Your task to perform on an android device: Search for flights from Sydney to Zurich Image 0: 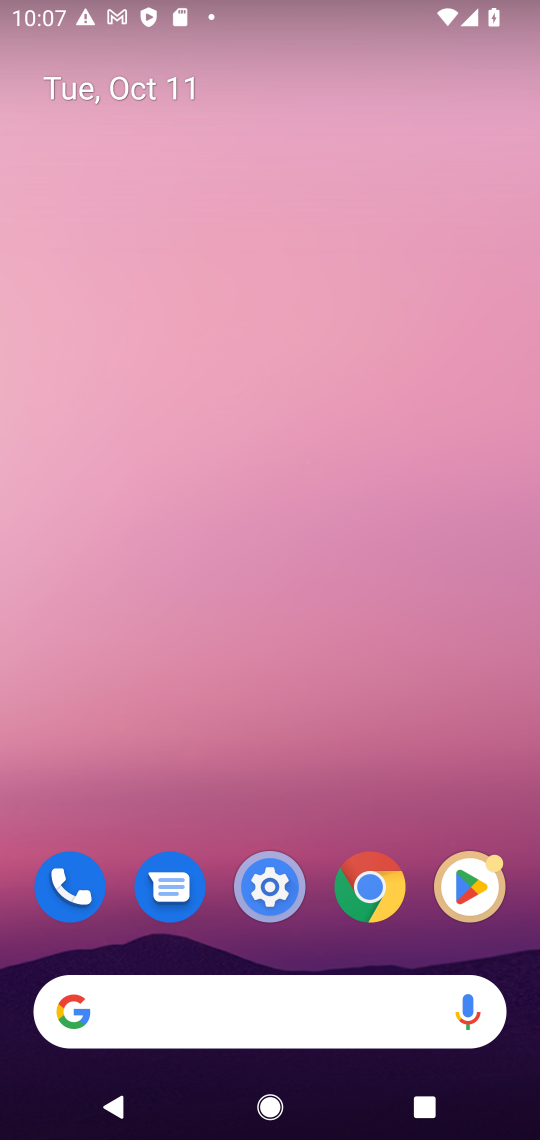
Step 0: press home button
Your task to perform on an android device: Search for flights from Sydney to Zurich Image 1: 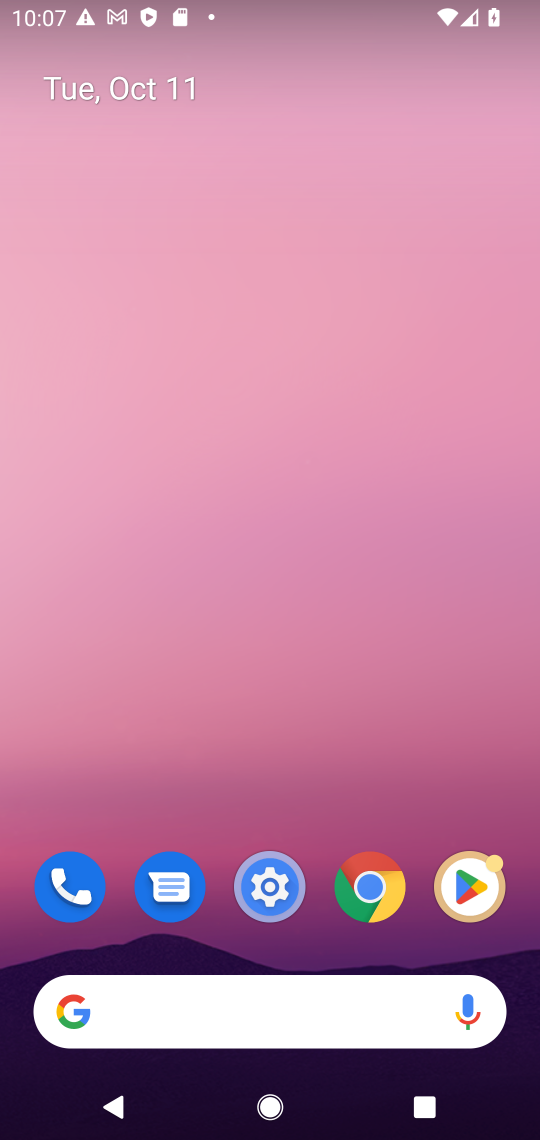
Step 1: click (196, 1009)
Your task to perform on an android device: Search for flights from Sydney to Zurich Image 2: 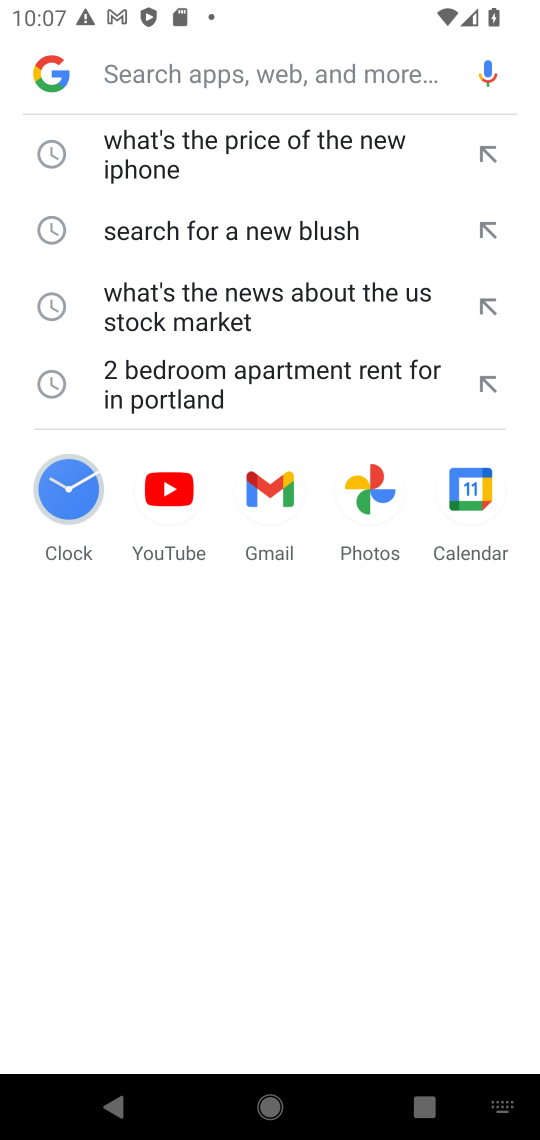
Step 2: type "flights from Sydney to Zurich"
Your task to perform on an android device: Search for flights from Sydney to Zurich Image 3: 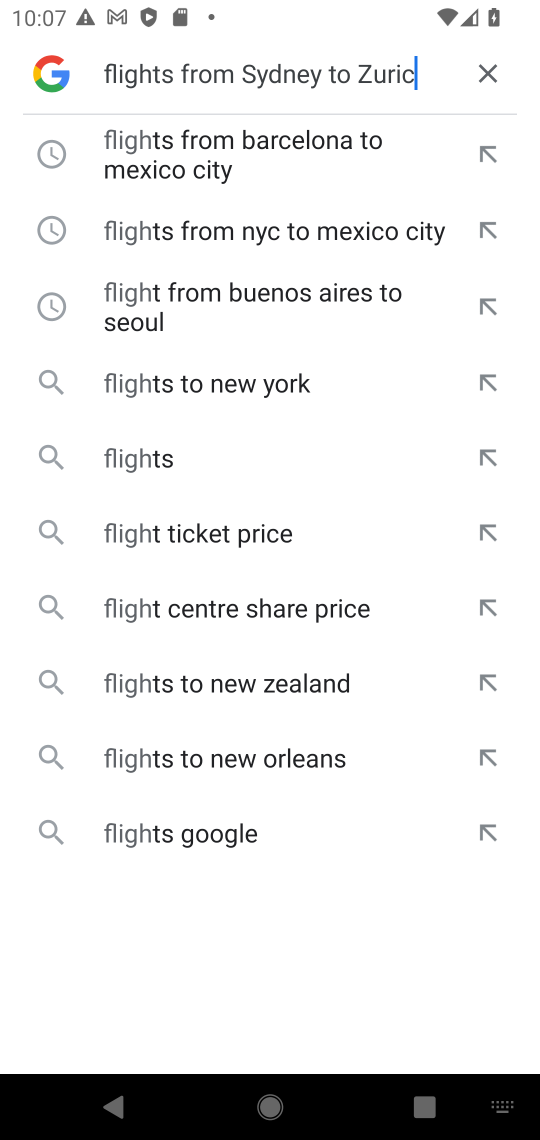
Step 3: press enter
Your task to perform on an android device: Search for flights from Sydney to Zurich Image 4: 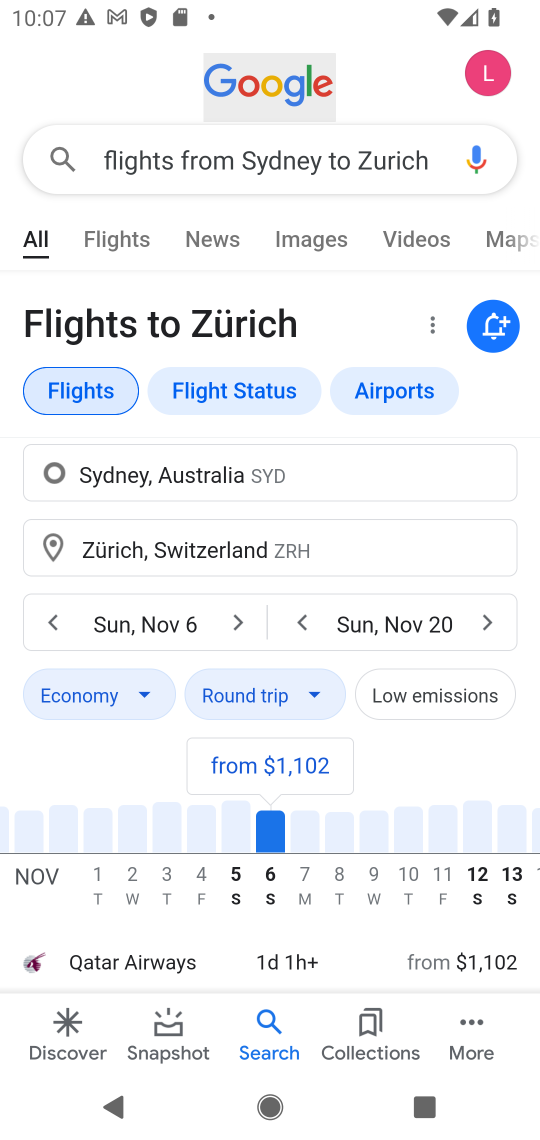
Step 4: press enter
Your task to perform on an android device: Search for flights from Sydney to Zurich Image 5: 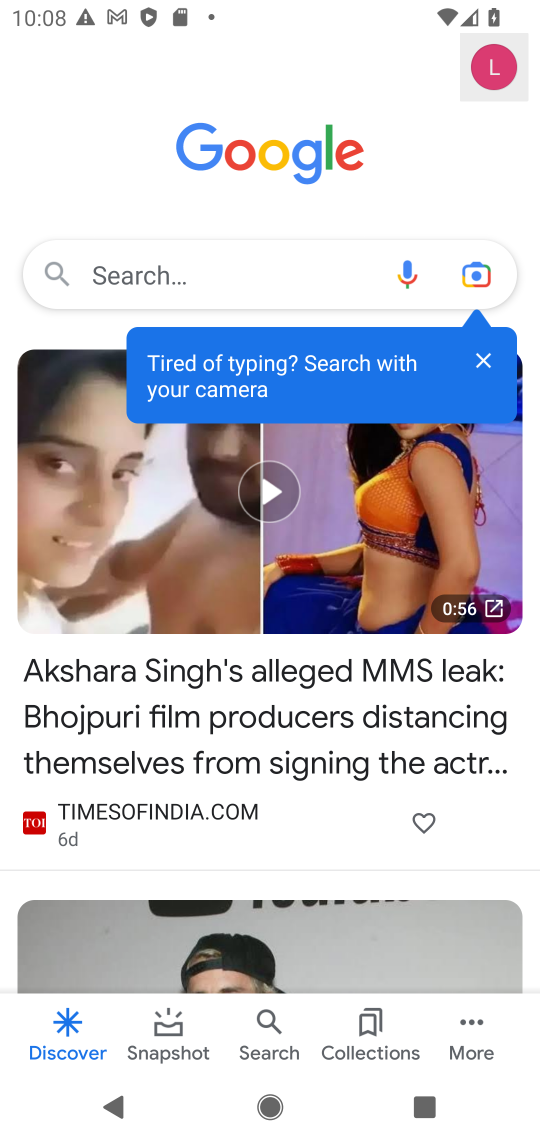
Step 5: click (167, 271)
Your task to perform on an android device: Search for flights from Sydney to Zurich Image 6: 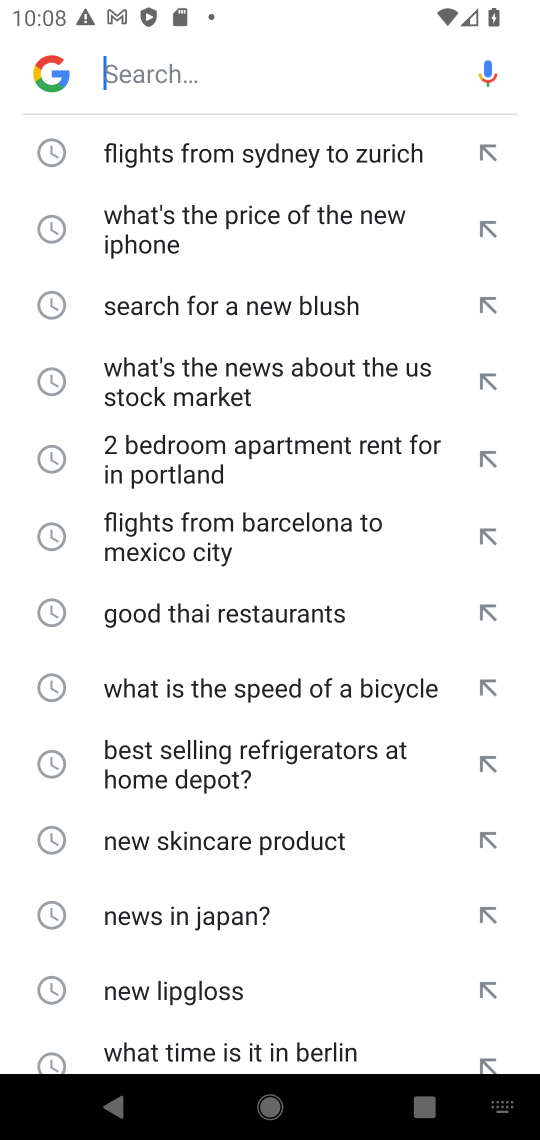
Step 6: type "flights from Sydney to Zurich"
Your task to perform on an android device: Search for flights from Sydney to Zurich Image 7: 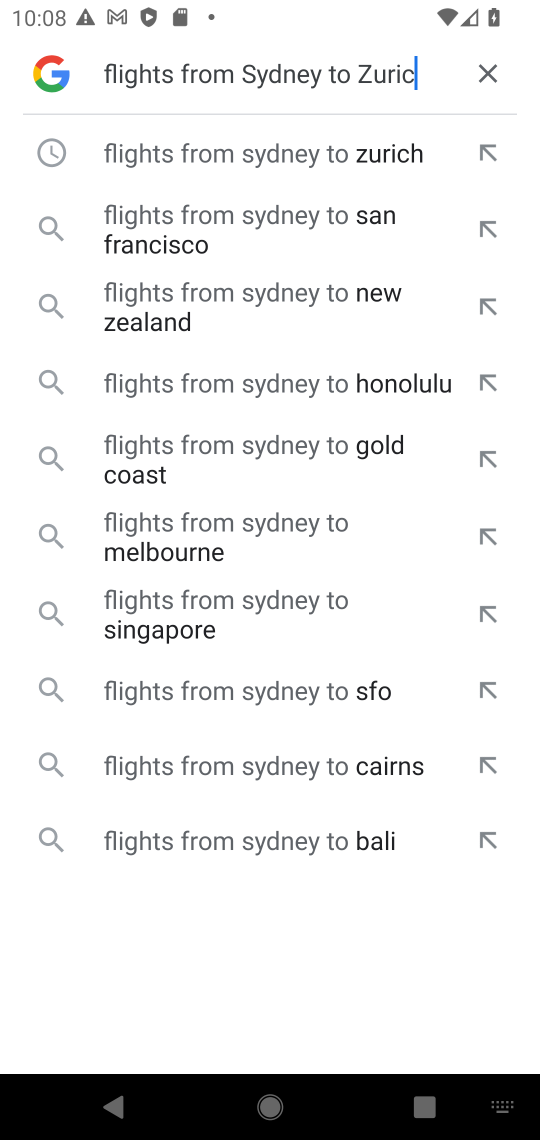
Step 7: press enter
Your task to perform on an android device: Search for flights from Sydney to Zurich Image 8: 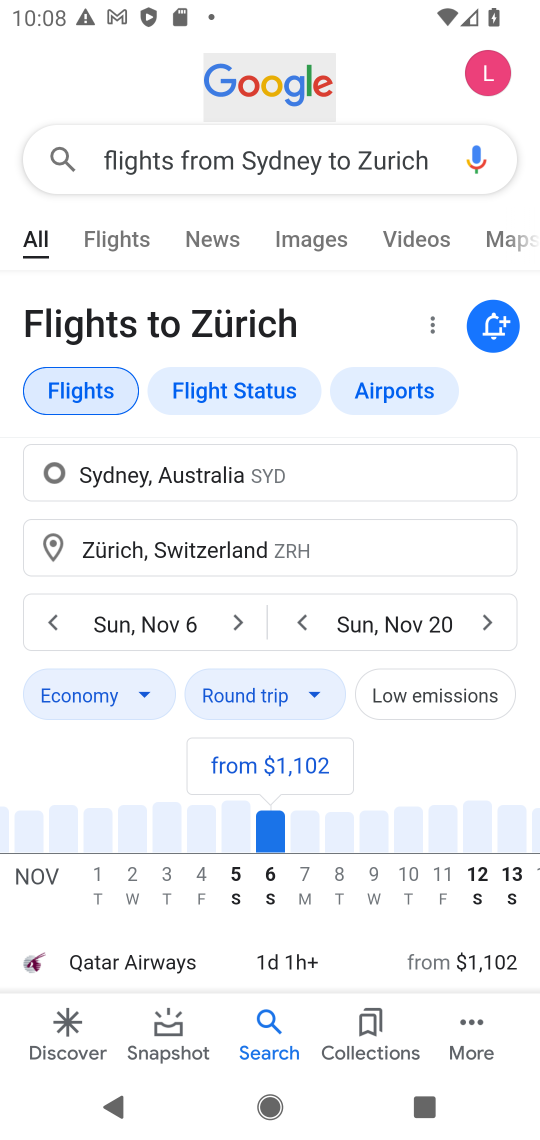
Step 8: drag from (344, 830) to (353, 426)
Your task to perform on an android device: Search for flights from Sydney to Zurich Image 9: 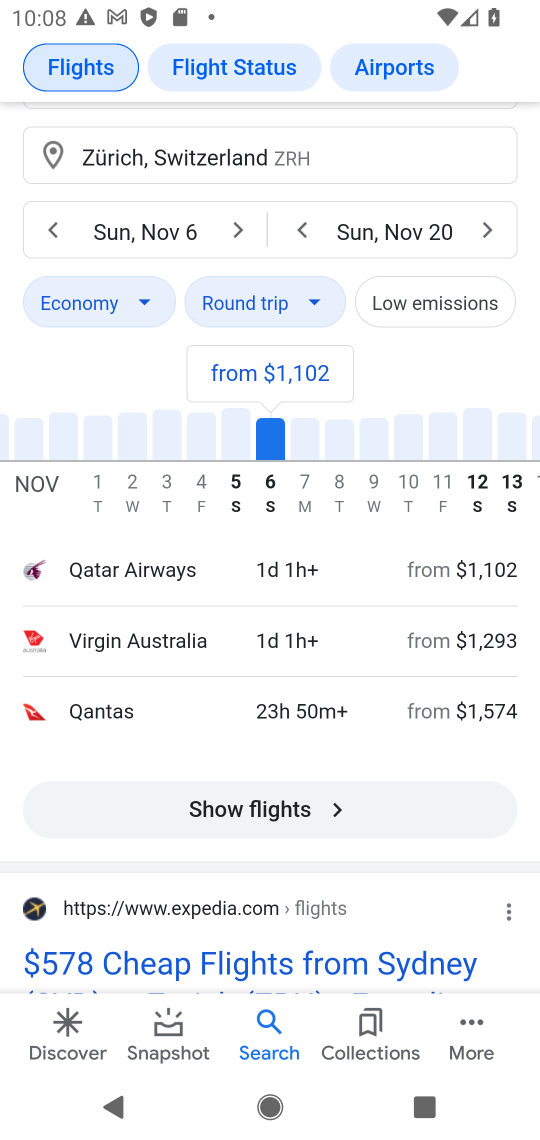
Step 9: click (257, 803)
Your task to perform on an android device: Search for flights from Sydney to Zurich Image 10: 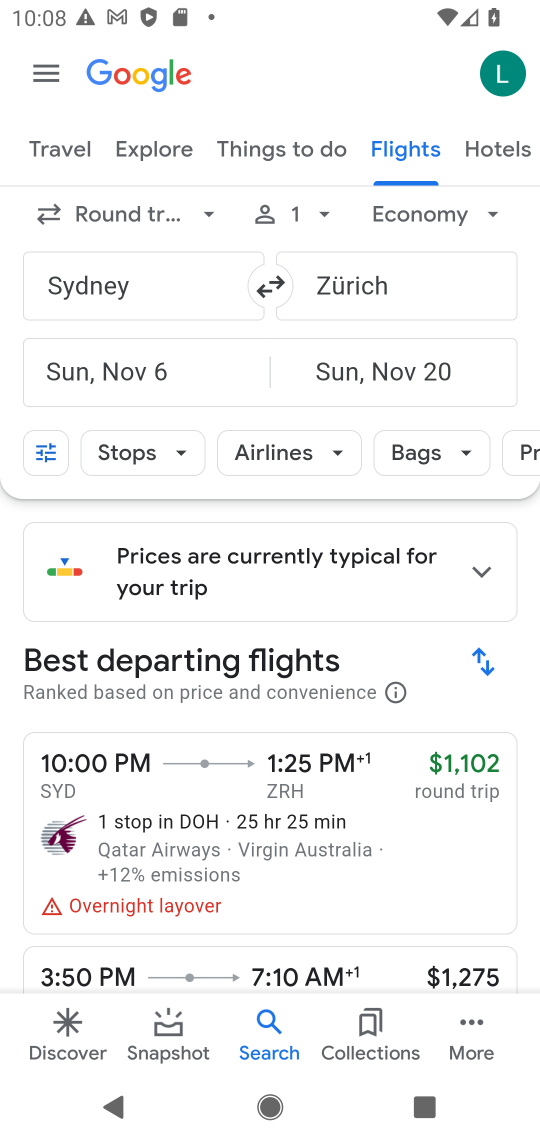
Step 10: task complete